Your task to perform on an android device: turn on location history Image 0: 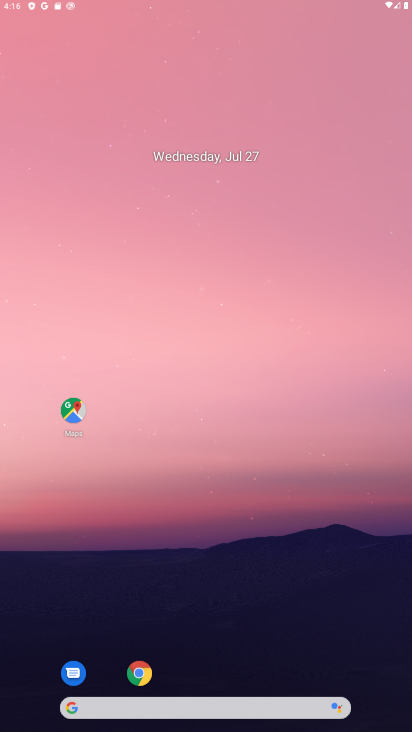
Step 0: click (357, 207)
Your task to perform on an android device: turn on location history Image 1: 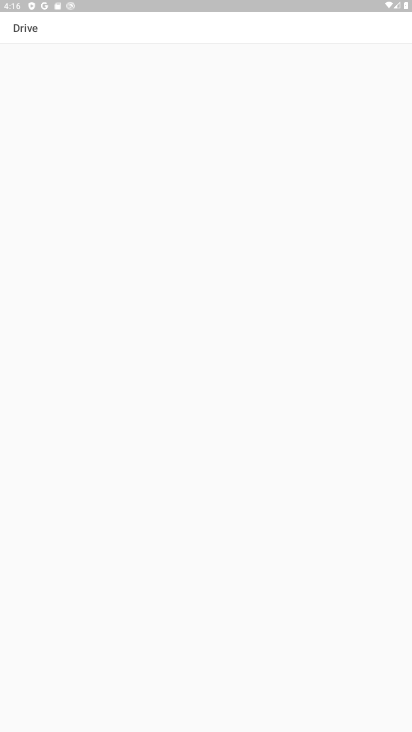
Step 1: press home button
Your task to perform on an android device: turn on location history Image 2: 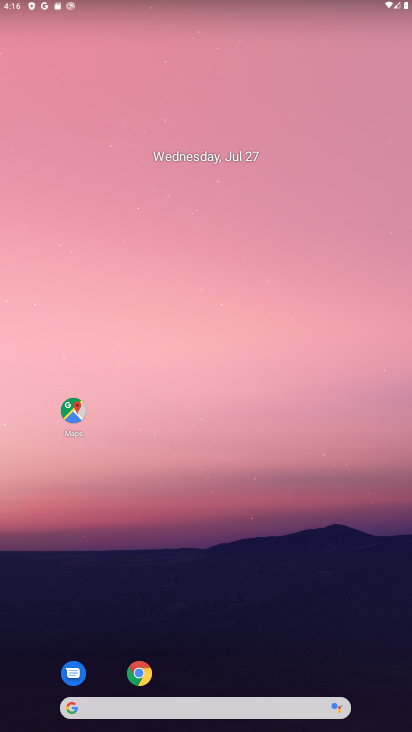
Step 2: click (73, 411)
Your task to perform on an android device: turn on location history Image 3: 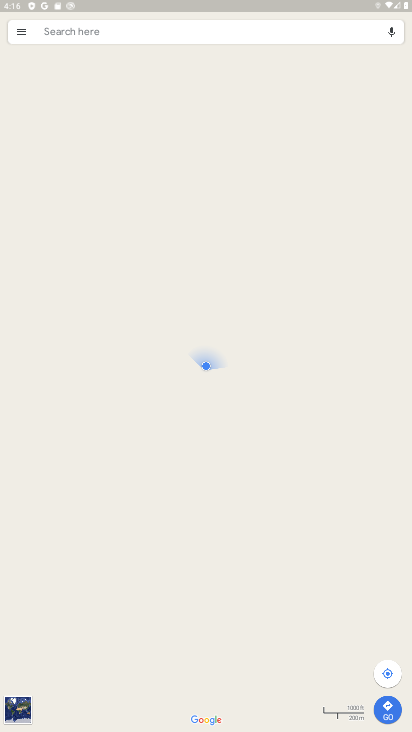
Step 3: click (22, 34)
Your task to perform on an android device: turn on location history Image 4: 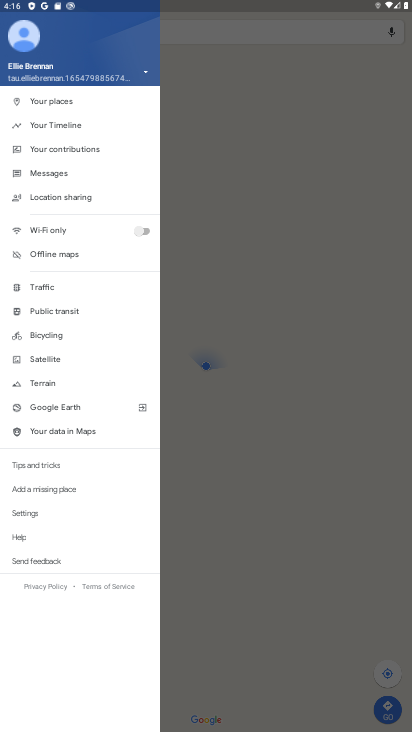
Step 4: click (21, 510)
Your task to perform on an android device: turn on location history Image 5: 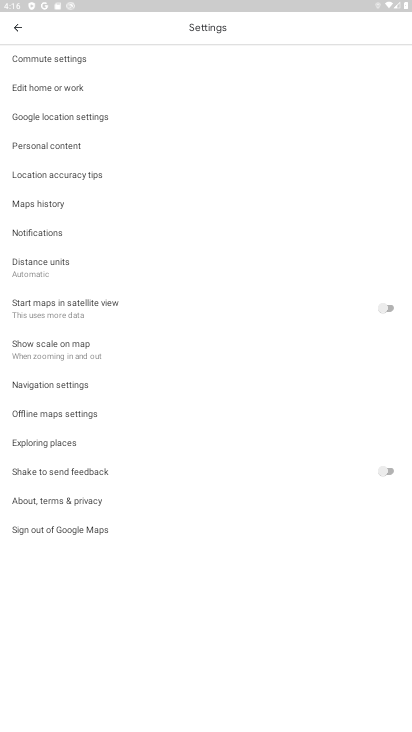
Step 5: click (50, 146)
Your task to perform on an android device: turn on location history Image 6: 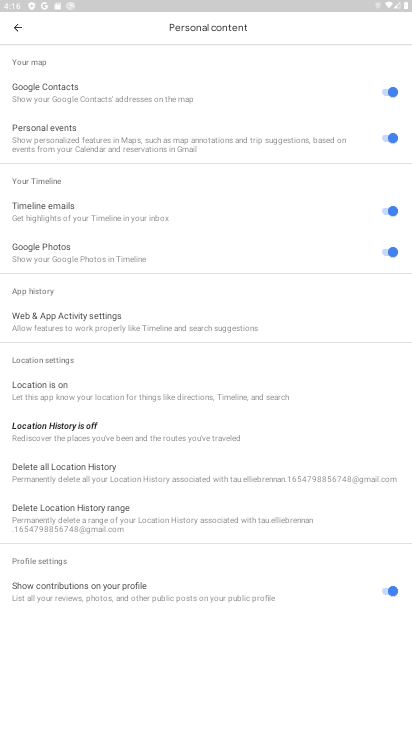
Step 6: click (74, 426)
Your task to perform on an android device: turn on location history Image 7: 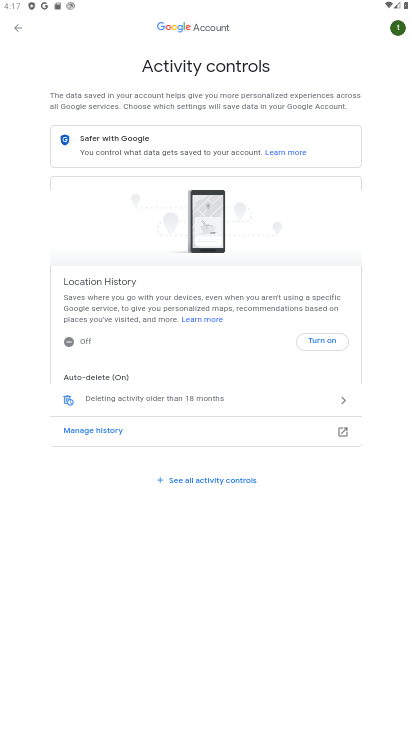
Step 7: click (313, 340)
Your task to perform on an android device: turn on location history Image 8: 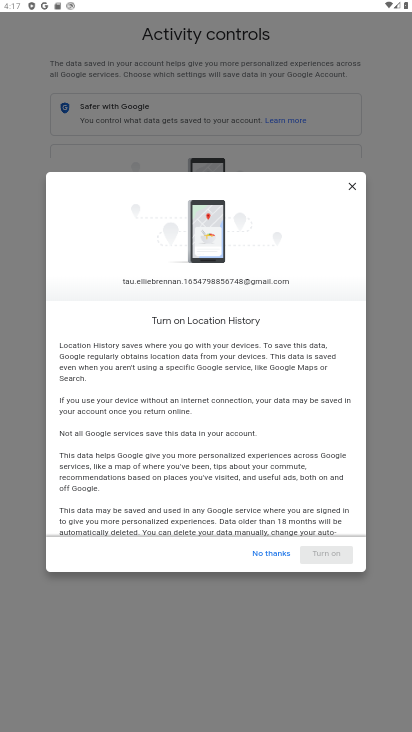
Step 8: drag from (303, 485) to (259, 130)
Your task to perform on an android device: turn on location history Image 9: 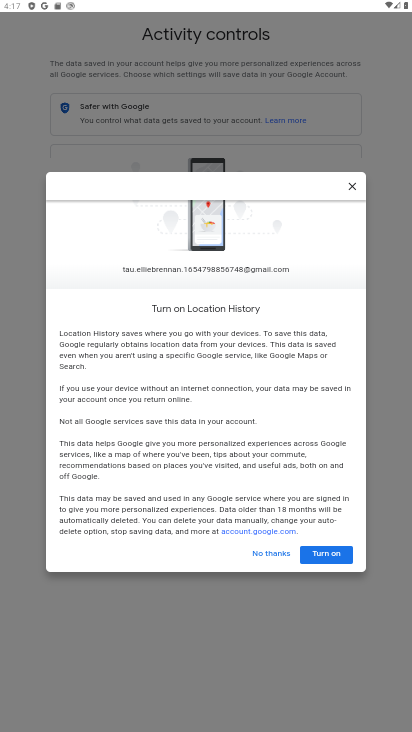
Step 9: click (328, 552)
Your task to perform on an android device: turn on location history Image 10: 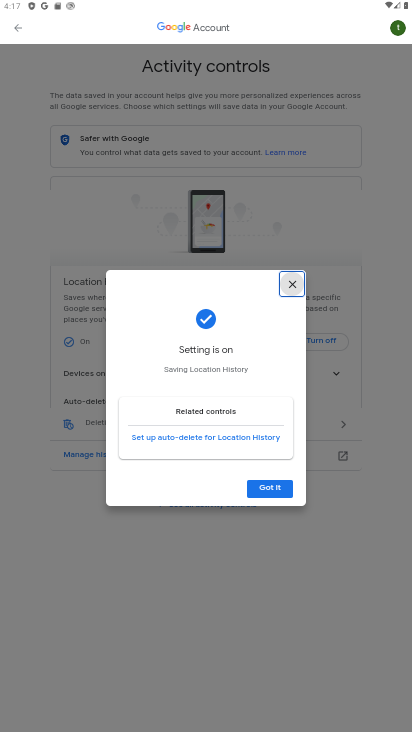
Step 10: click (266, 488)
Your task to perform on an android device: turn on location history Image 11: 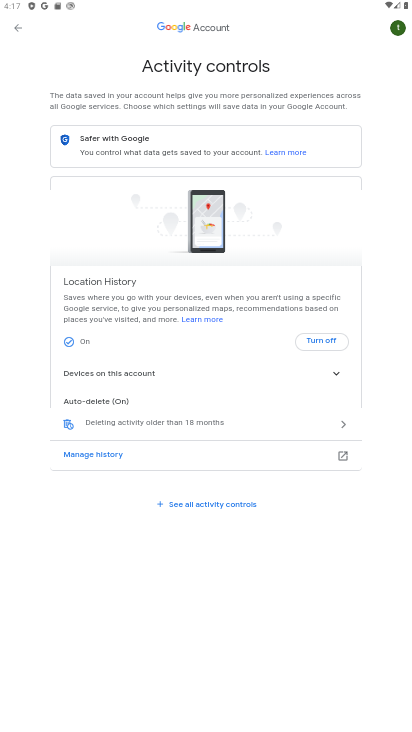
Step 11: task complete